Your task to perform on an android device: toggle data saver in the chrome app Image 0: 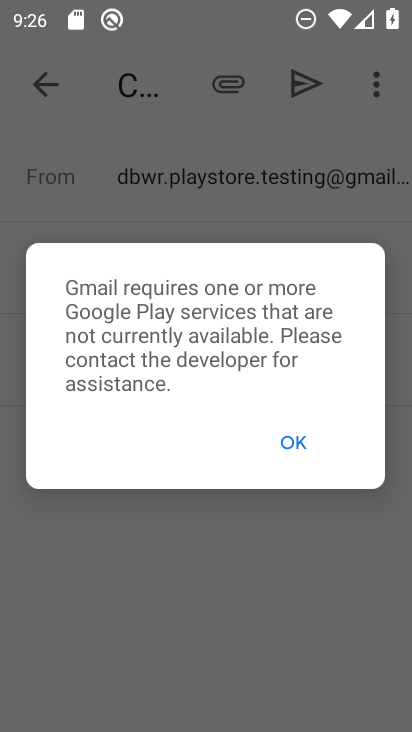
Step 0: press home button
Your task to perform on an android device: toggle data saver in the chrome app Image 1: 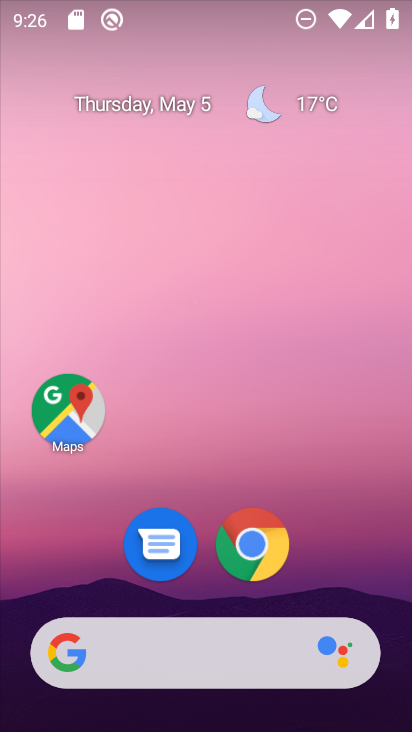
Step 1: drag from (399, 665) to (269, 54)
Your task to perform on an android device: toggle data saver in the chrome app Image 2: 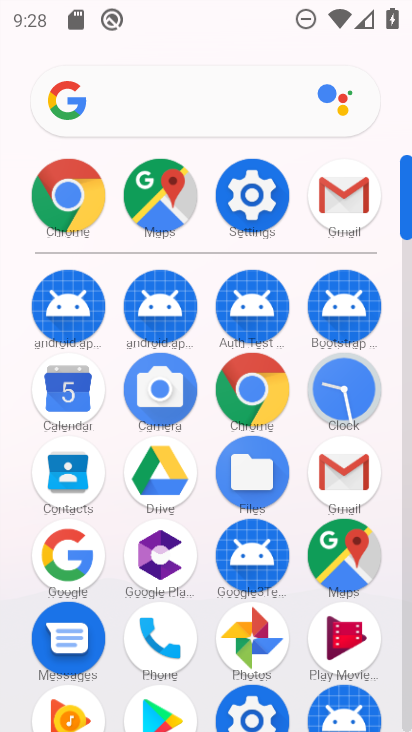
Step 2: click (266, 398)
Your task to perform on an android device: toggle data saver in the chrome app Image 3: 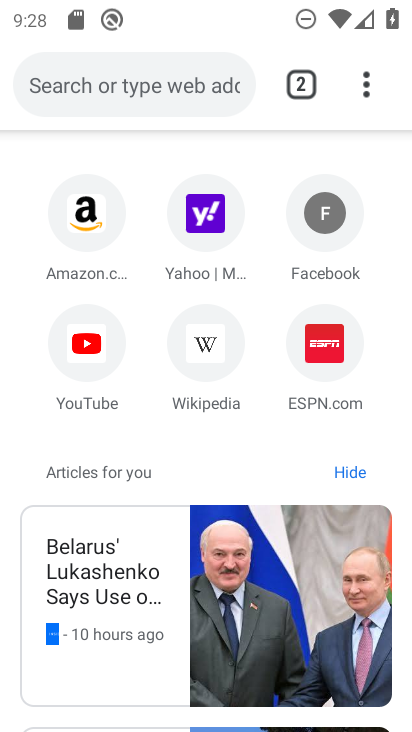
Step 3: click (364, 74)
Your task to perform on an android device: toggle data saver in the chrome app Image 4: 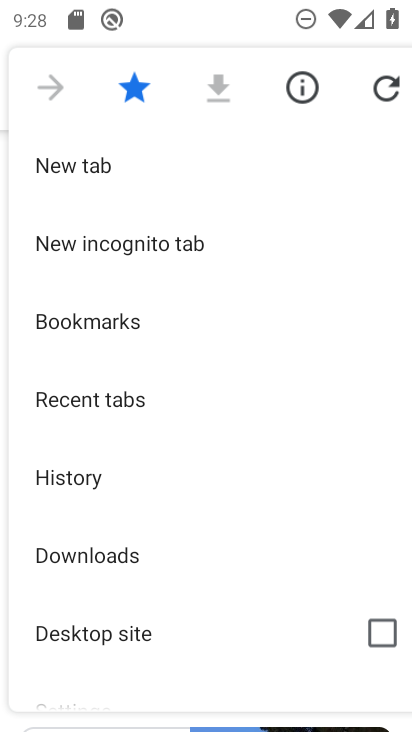
Step 4: drag from (238, 647) to (281, 105)
Your task to perform on an android device: toggle data saver in the chrome app Image 5: 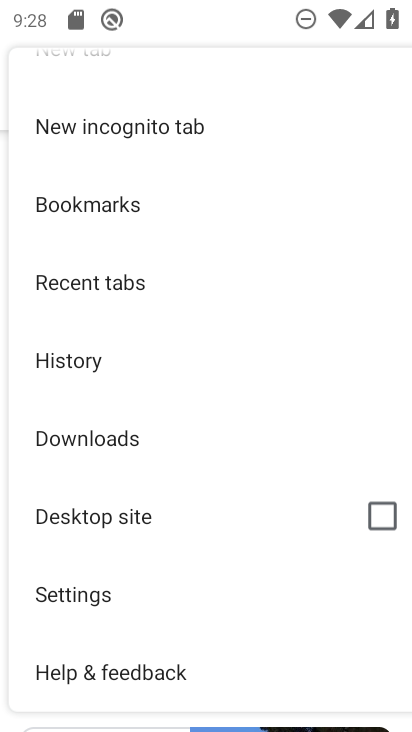
Step 5: click (62, 609)
Your task to perform on an android device: toggle data saver in the chrome app Image 6: 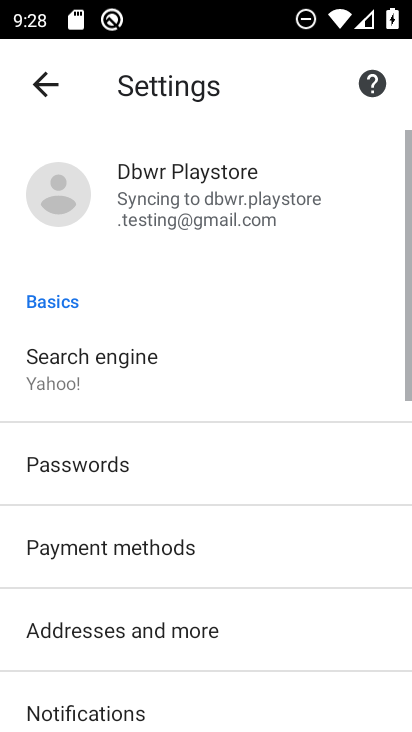
Step 6: drag from (62, 609) to (228, 123)
Your task to perform on an android device: toggle data saver in the chrome app Image 7: 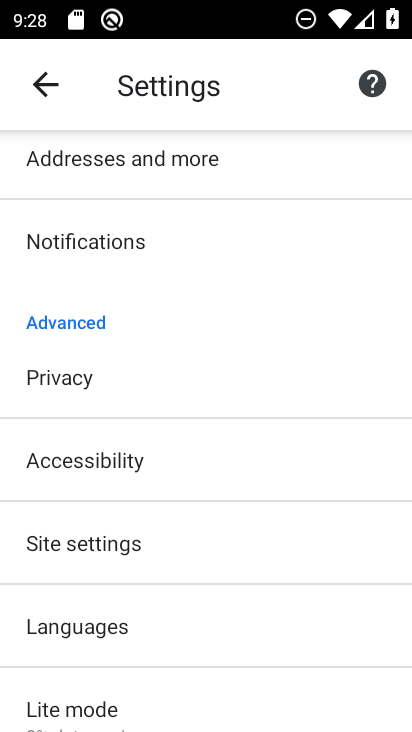
Step 7: click (136, 704)
Your task to perform on an android device: toggle data saver in the chrome app Image 8: 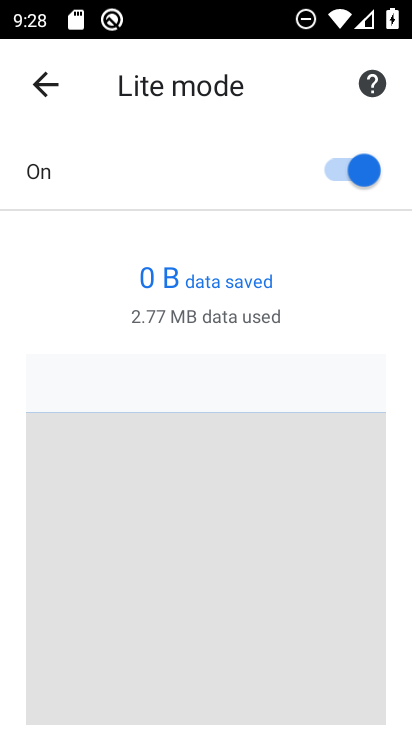
Step 8: click (322, 199)
Your task to perform on an android device: toggle data saver in the chrome app Image 9: 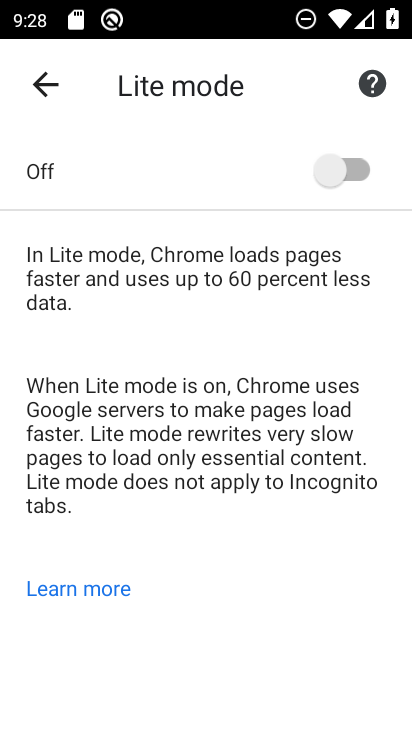
Step 9: task complete